Your task to perform on an android device: Show me the alarms in the clock app Image 0: 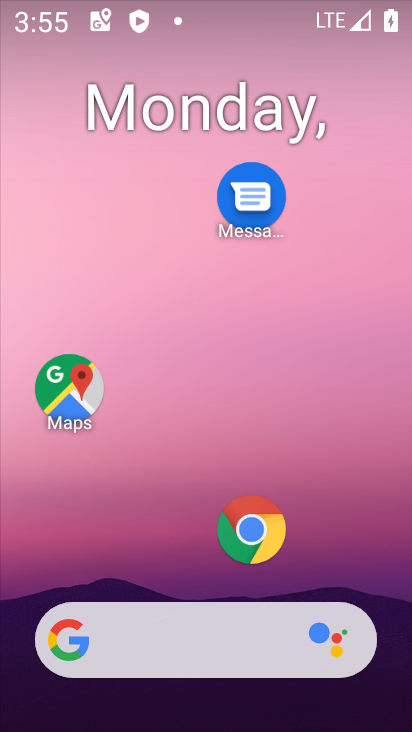
Step 0: drag from (187, 569) to (256, 45)
Your task to perform on an android device: Show me the alarms in the clock app Image 1: 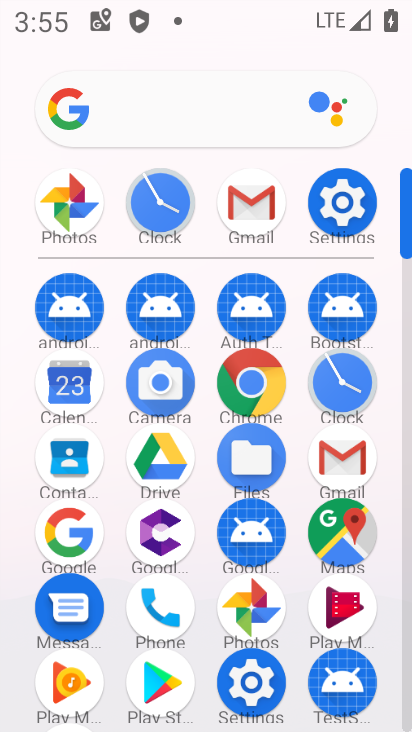
Step 1: click (363, 381)
Your task to perform on an android device: Show me the alarms in the clock app Image 2: 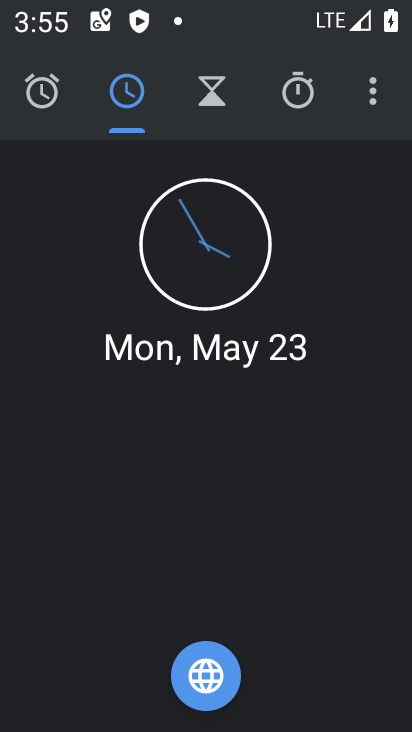
Step 2: click (54, 110)
Your task to perform on an android device: Show me the alarms in the clock app Image 3: 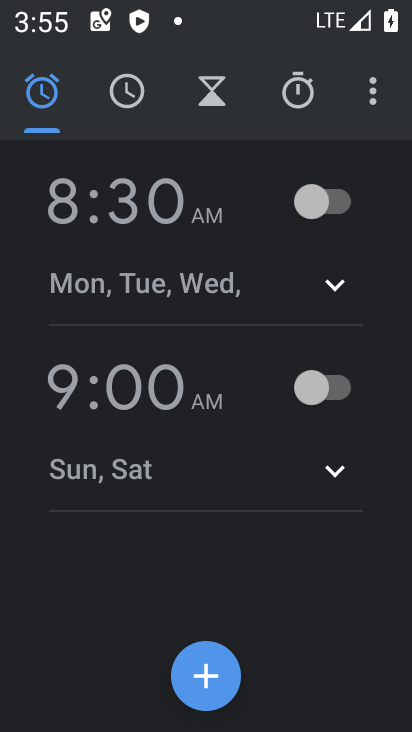
Step 3: task complete